Your task to perform on an android device: change your default location settings in chrome Image 0: 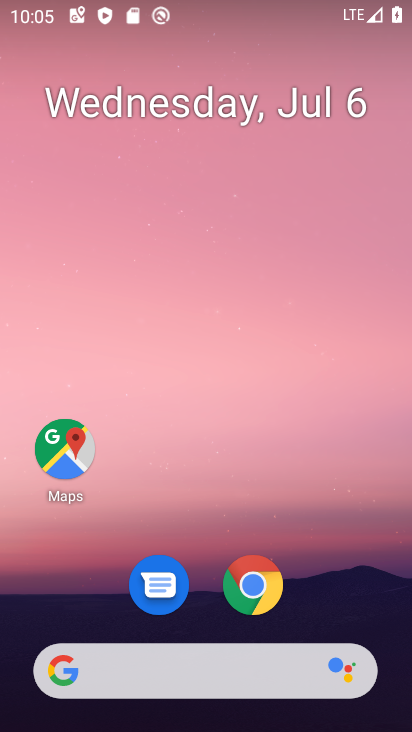
Step 0: click (259, 578)
Your task to perform on an android device: change your default location settings in chrome Image 1: 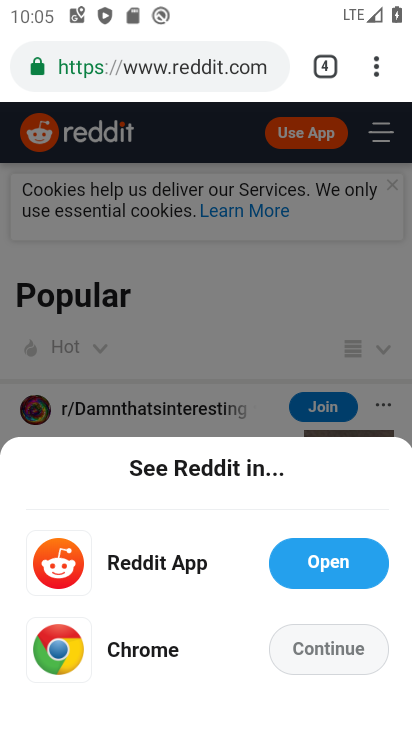
Step 1: click (259, 578)
Your task to perform on an android device: change your default location settings in chrome Image 2: 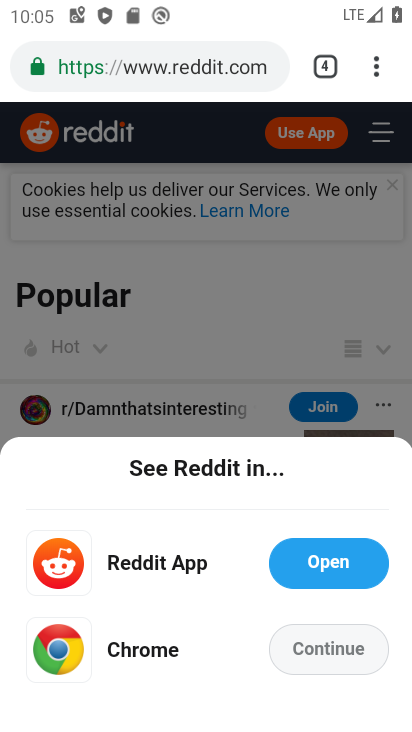
Step 2: click (376, 60)
Your task to perform on an android device: change your default location settings in chrome Image 3: 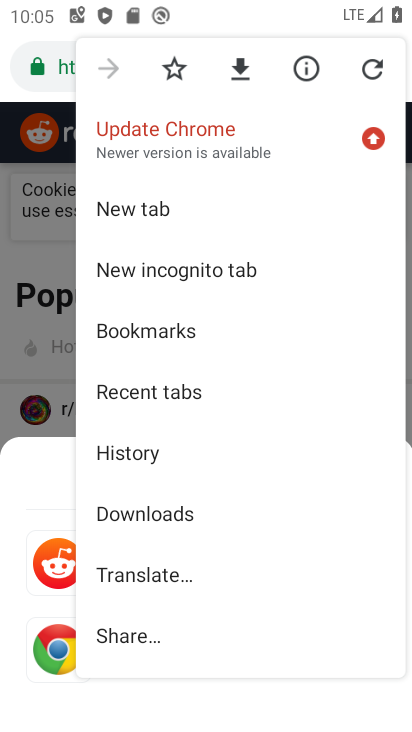
Step 3: drag from (247, 519) to (250, 145)
Your task to perform on an android device: change your default location settings in chrome Image 4: 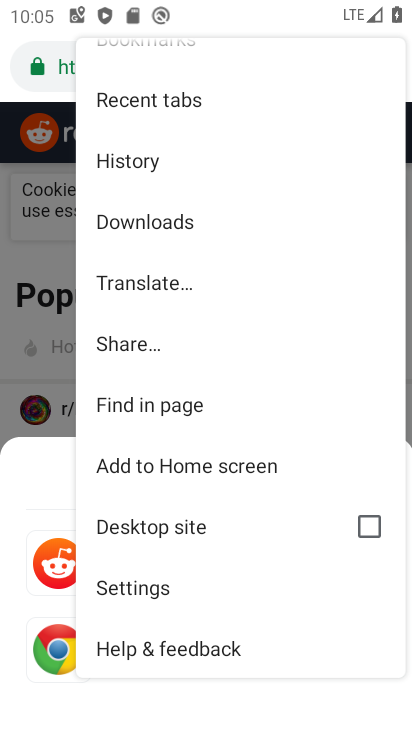
Step 4: click (165, 582)
Your task to perform on an android device: change your default location settings in chrome Image 5: 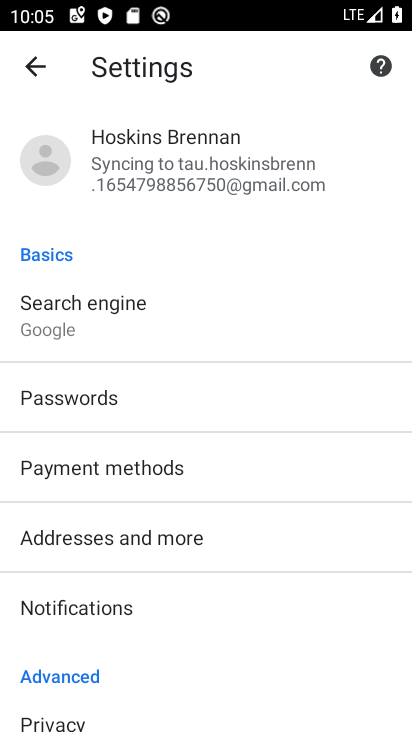
Step 5: drag from (232, 508) to (238, 158)
Your task to perform on an android device: change your default location settings in chrome Image 6: 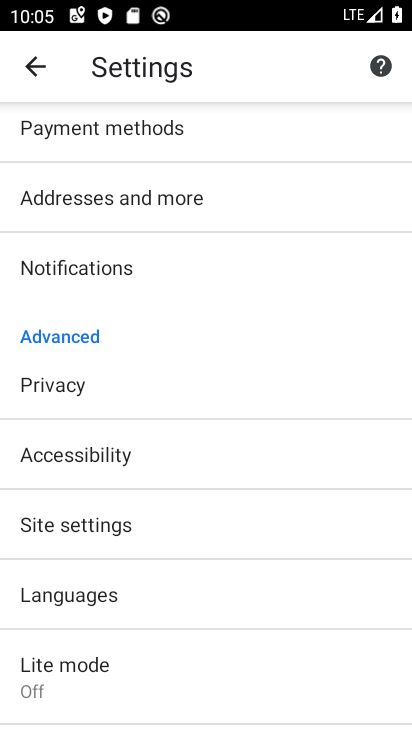
Step 6: drag from (218, 603) to (212, 274)
Your task to perform on an android device: change your default location settings in chrome Image 7: 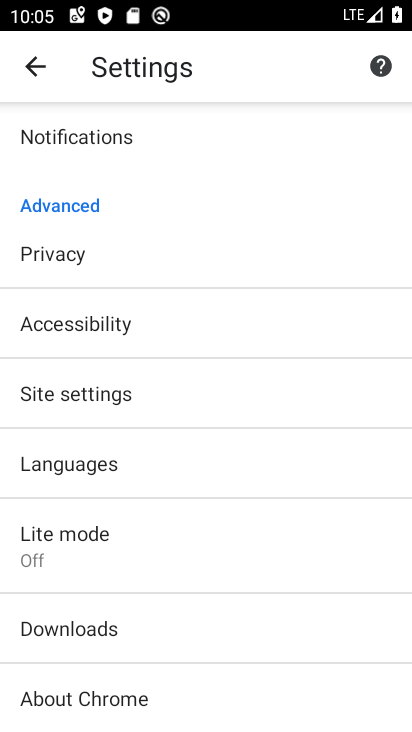
Step 7: click (173, 387)
Your task to perform on an android device: change your default location settings in chrome Image 8: 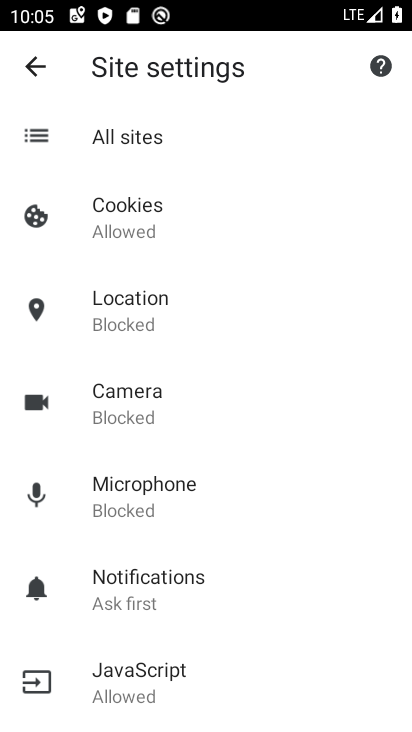
Step 8: click (161, 314)
Your task to perform on an android device: change your default location settings in chrome Image 9: 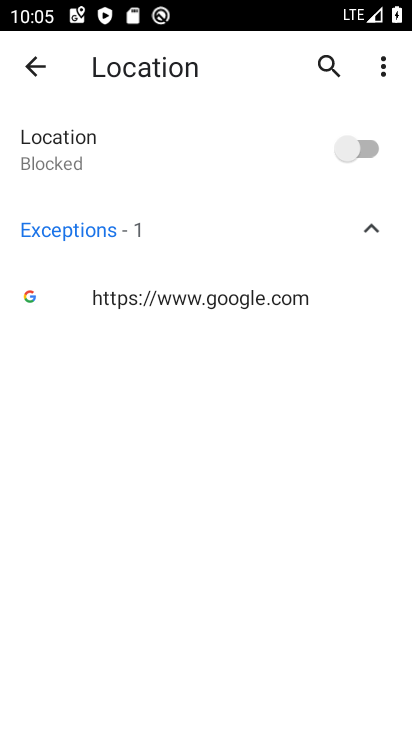
Step 9: click (356, 146)
Your task to perform on an android device: change your default location settings in chrome Image 10: 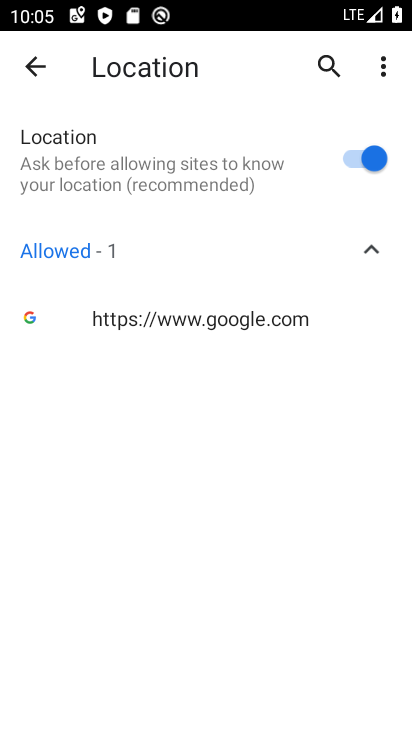
Step 10: task complete